Your task to perform on an android device: toggle pop-ups in chrome Image 0: 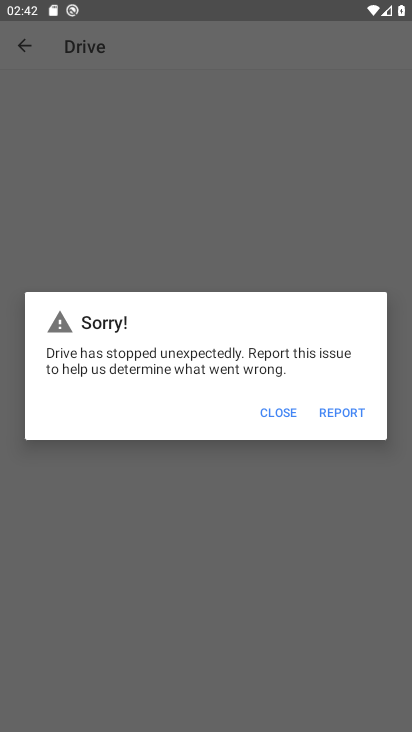
Step 0: press home button
Your task to perform on an android device: toggle pop-ups in chrome Image 1: 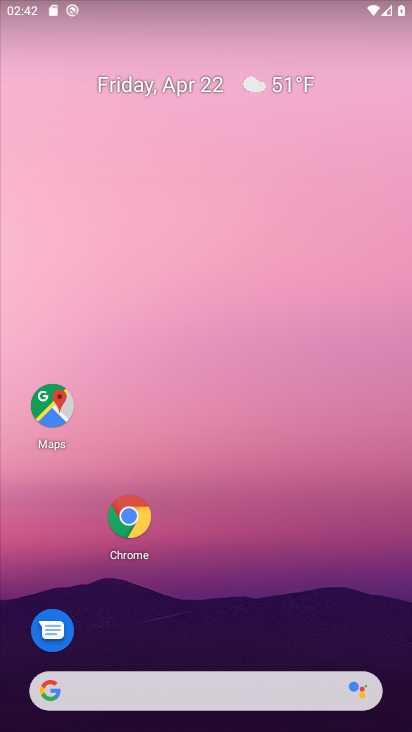
Step 1: drag from (371, 456) to (358, 217)
Your task to perform on an android device: toggle pop-ups in chrome Image 2: 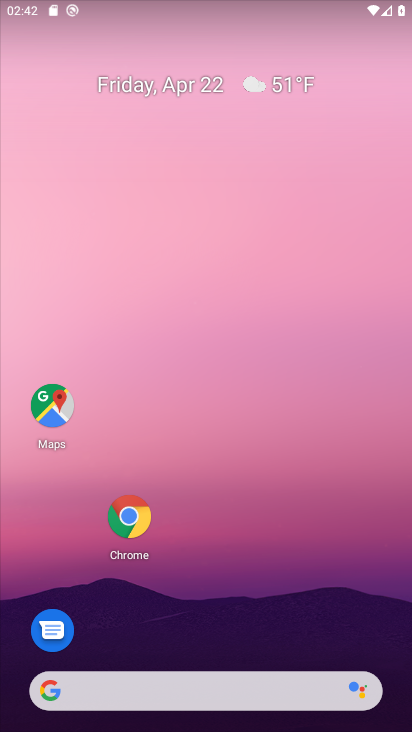
Step 2: click (127, 520)
Your task to perform on an android device: toggle pop-ups in chrome Image 3: 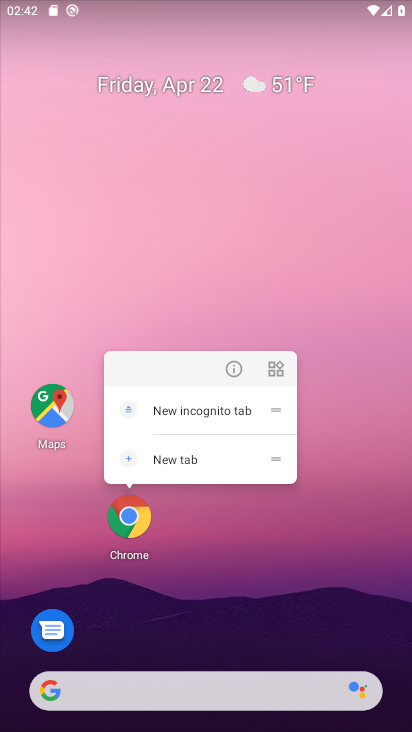
Step 3: click (127, 523)
Your task to perform on an android device: toggle pop-ups in chrome Image 4: 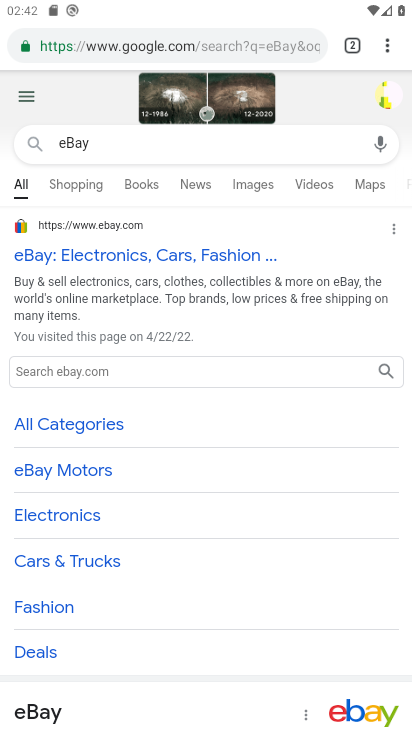
Step 4: click (387, 42)
Your task to perform on an android device: toggle pop-ups in chrome Image 5: 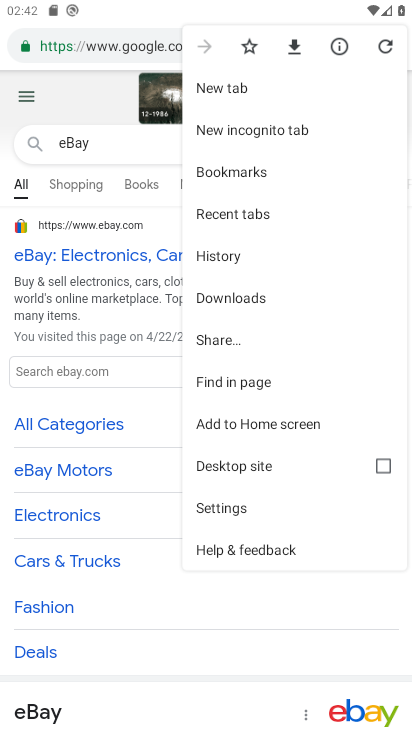
Step 5: click (230, 502)
Your task to perform on an android device: toggle pop-ups in chrome Image 6: 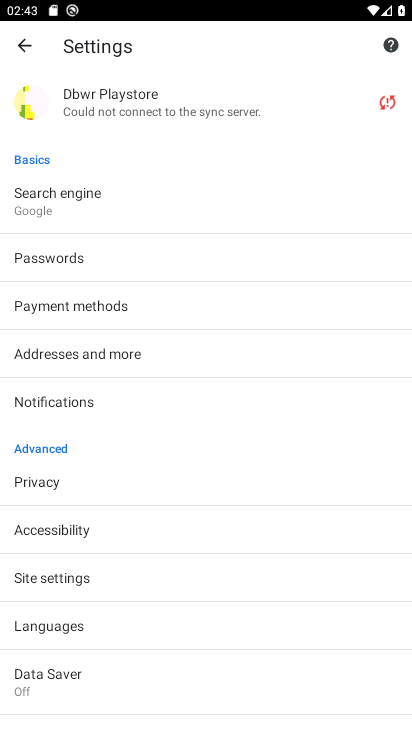
Step 6: click (35, 581)
Your task to perform on an android device: toggle pop-ups in chrome Image 7: 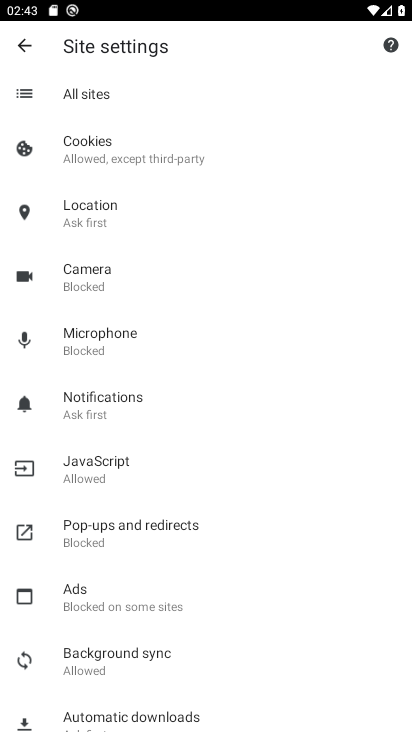
Step 7: click (111, 524)
Your task to perform on an android device: toggle pop-ups in chrome Image 8: 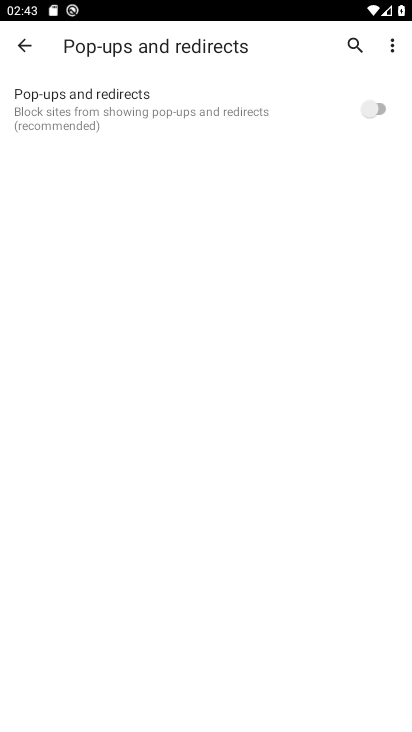
Step 8: click (383, 106)
Your task to perform on an android device: toggle pop-ups in chrome Image 9: 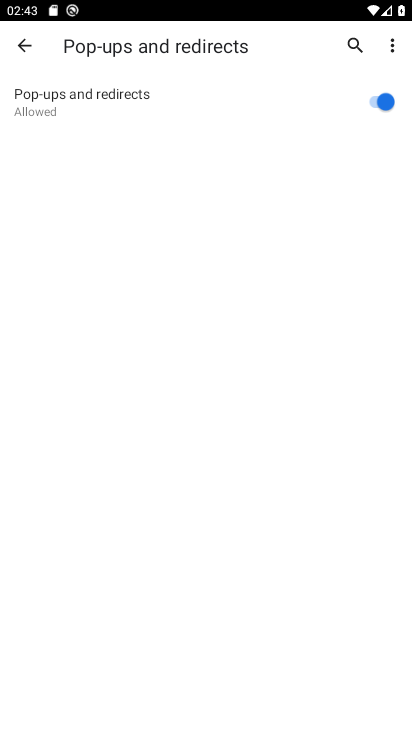
Step 9: task complete